Your task to perform on an android device: Go to wifi settings Image 0: 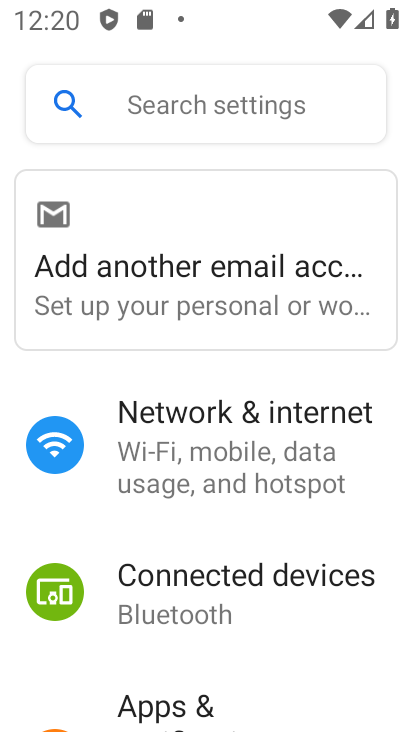
Step 0: click (265, 455)
Your task to perform on an android device: Go to wifi settings Image 1: 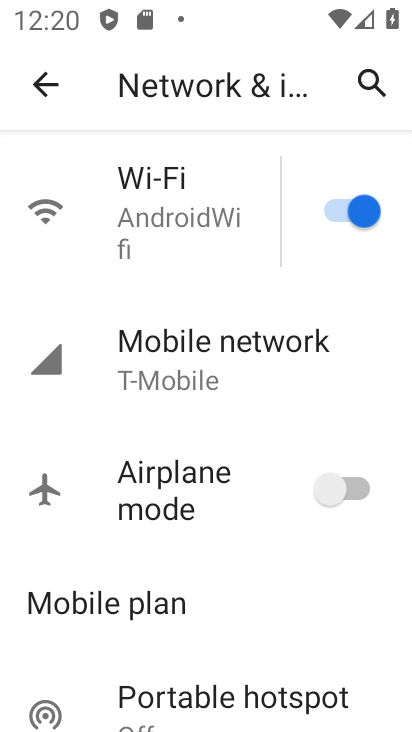
Step 1: click (164, 225)
Your task to perform on an android device: Go to wifi settings Image 2: 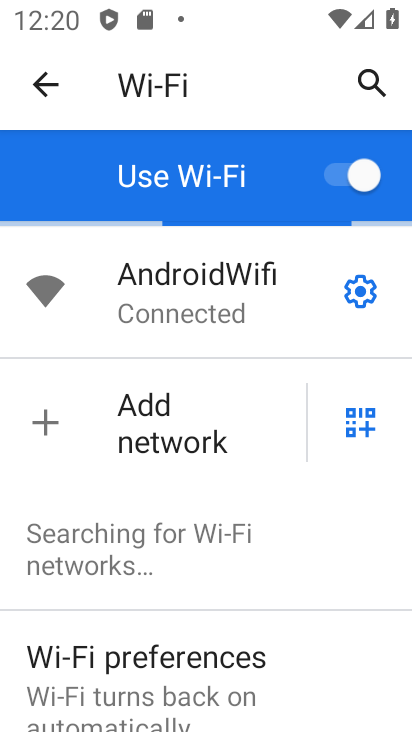
Step 2: task complete